Your task to perform on an android device: install app "Google Find My Device" Image 0: 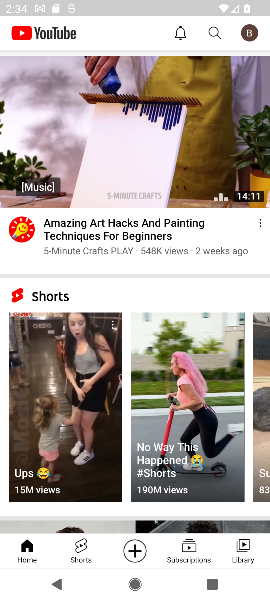
Step 0: press home button
Your task to perform on an android device: install app "Google Find My Device" Image 1: 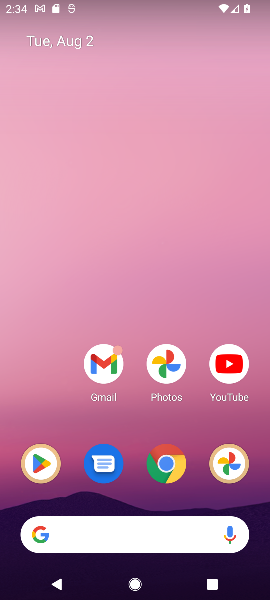
Step 1: click (46, 458)
Your task to perform on an android device: install app "Google Find My Device" Image 2: 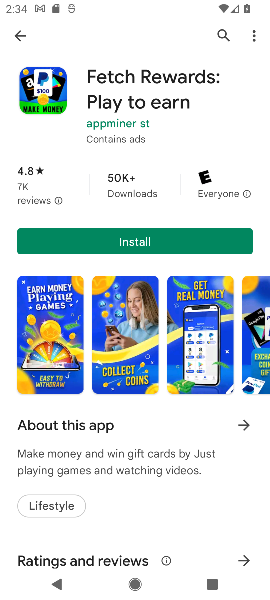
Step 2: click (224, 32)
Your task to perform on an android device: install app "Google Find My Device" Image 3: 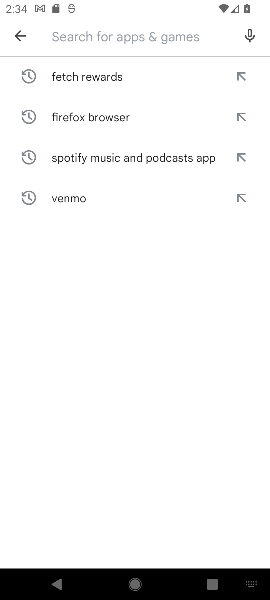
Step 3: type "Google Find My Device"
Your task to perform on an android device: install app "Google Find My Device" Image 4: 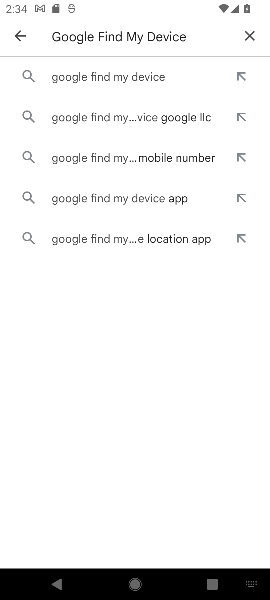
Step 4: click (112, 76)
Your task to perform on an android device: install app "Google Find My Device" Image 5: 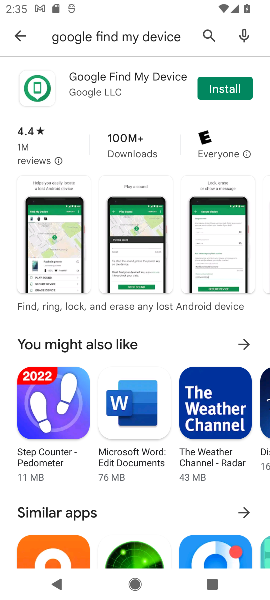
Step 5: click (232, 88)
Your task to perform on an android device: install app "Google Find My Device" Image 6: 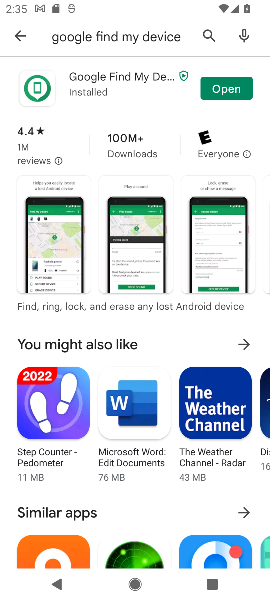
Step 6: task complete